Your task to perform on an android device: Go to notification settings Image 0: 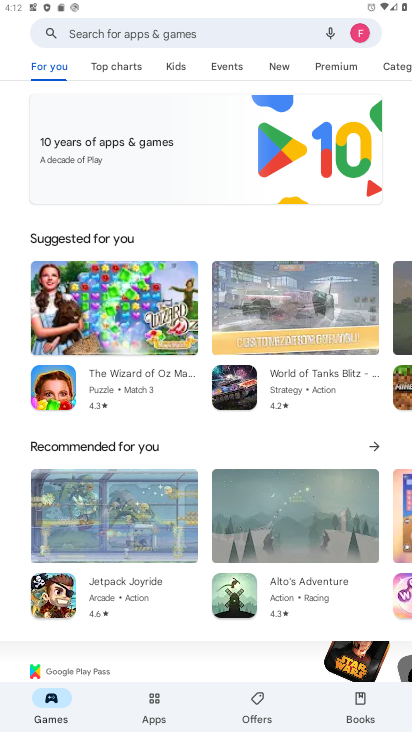
Step 0: press home button
Your task to perform on an android device: Go to notification settings Image 1: 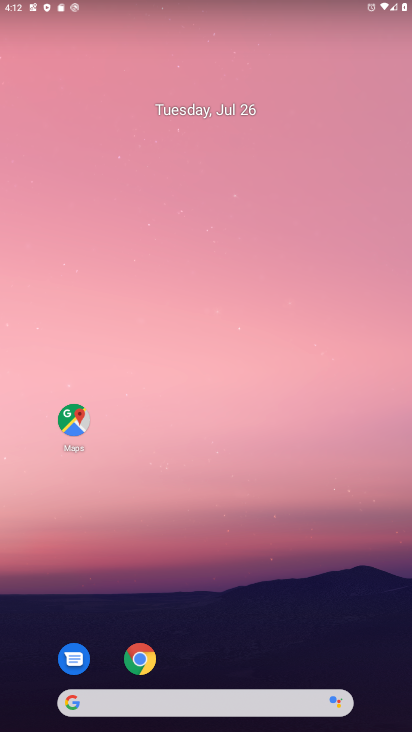
Step 1: drag from (293, 596) to (403, 27)
Your task to perform on an android device: Go to notification settings Image 2: 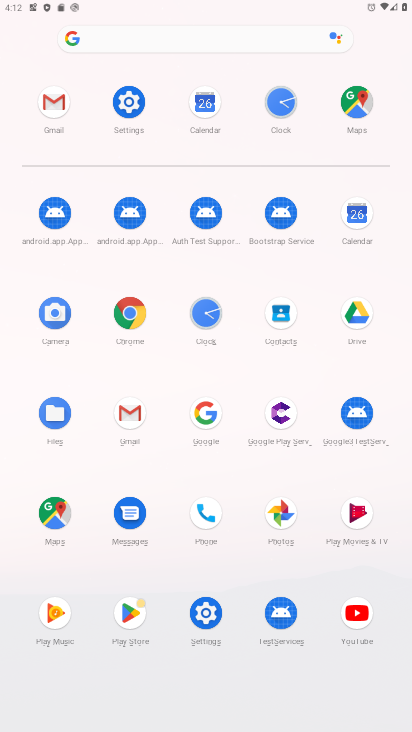
Step 2: click (129, 102)
Your task to perform on an android device: Go to notification settings Image 3: 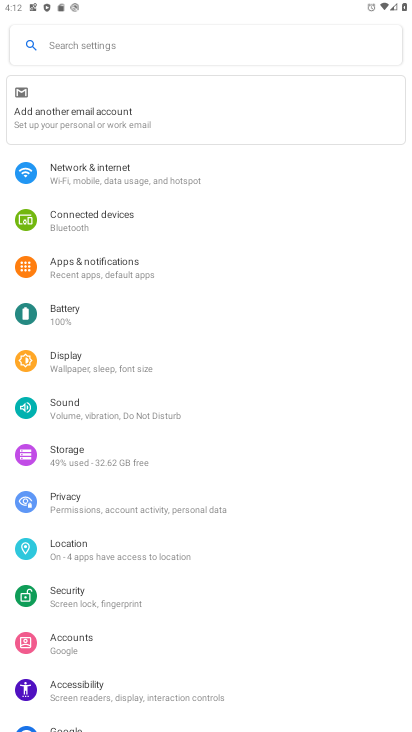
Step 3: click (108, 261)
Your task to perform on an android device: Go to notification settings Image 4: 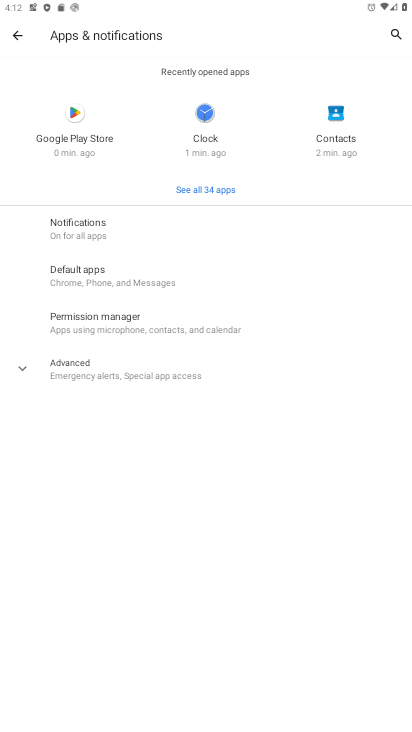
Step 4: click (74, 224)
Your task to perform on an android device: Go to notification settings Image 5: 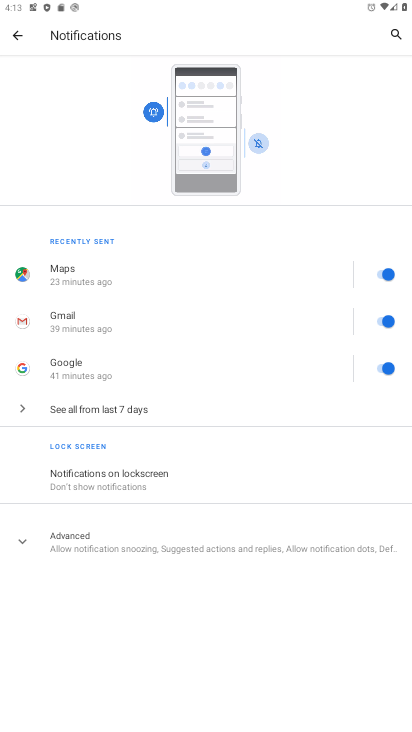
Step 5: task complete